Your task to perform on an android device: change notification settings in the gmail app Image 0: 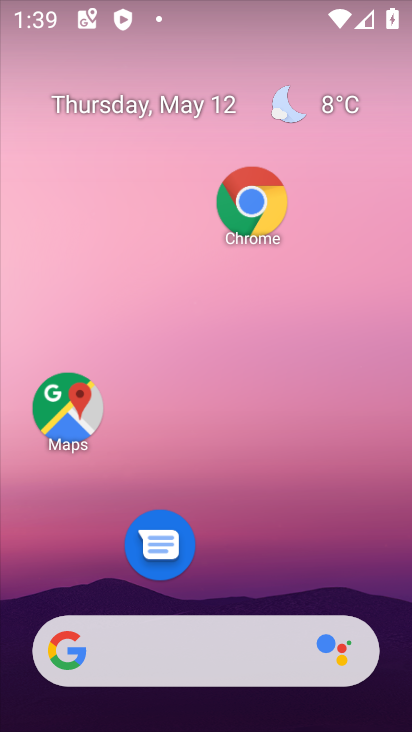
Step 0: drag from (218, 599) to (219, 259)
Your task to perform on an android device: change notification settings in the gmail app Image 1: 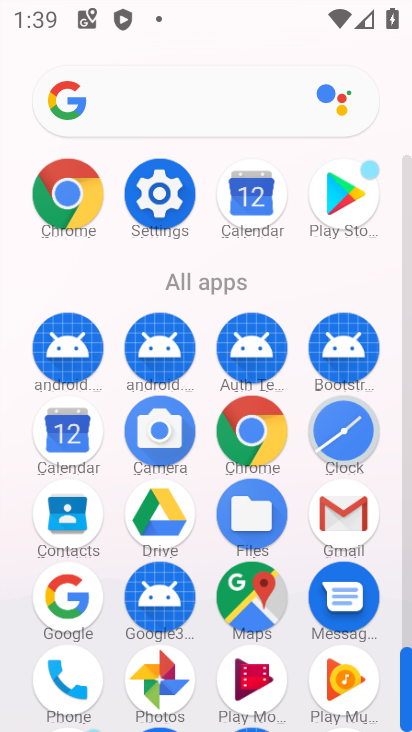
Step 1: click (320, 519)
Your task to perform on an android device: change notification settings in the gmail app Image 2: 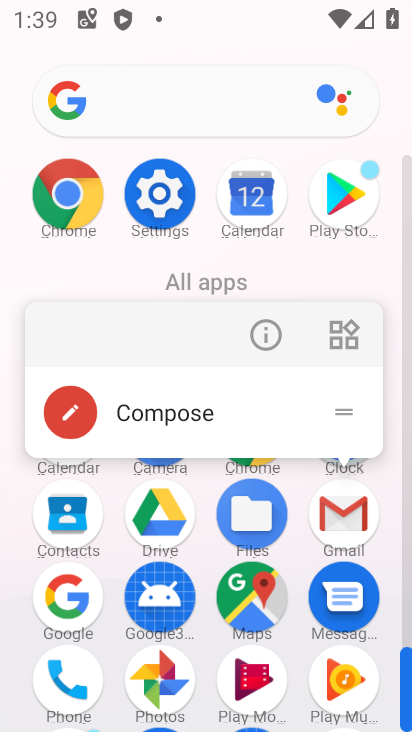
Step 2: click (255, 320)
Your task to perform on an android device: change notification settings in the gmail app Image 3: 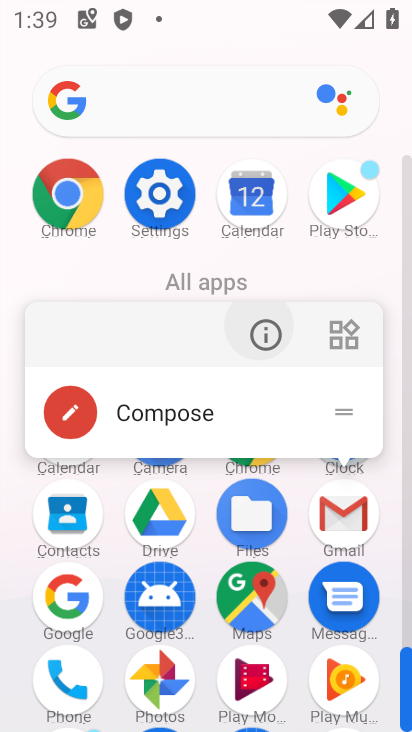
Step 3: click (255, 320)
Your task to perform on an android device: change notification settings in the gmail app Image 4: 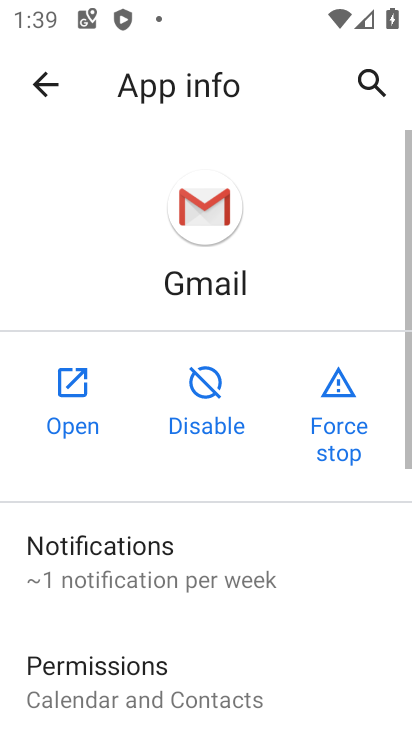
Step 4: click (82, 375)
Your task to perform on an android device: change notification settings in the gmail app Image 5: 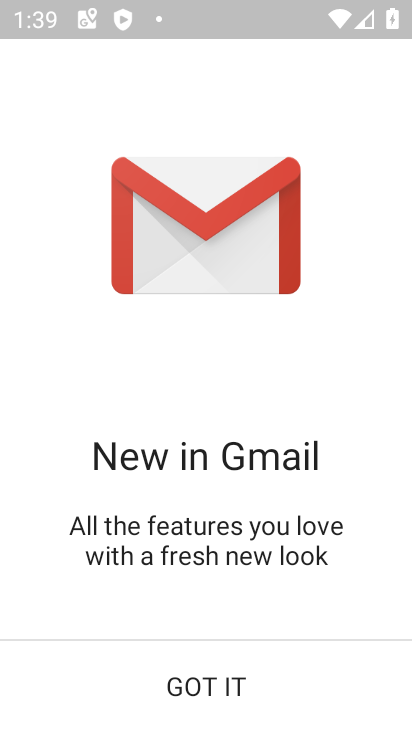
Step 5: click (203, 689)
Your task to perform on an android device: change notification settings in the gmail app Image 6: 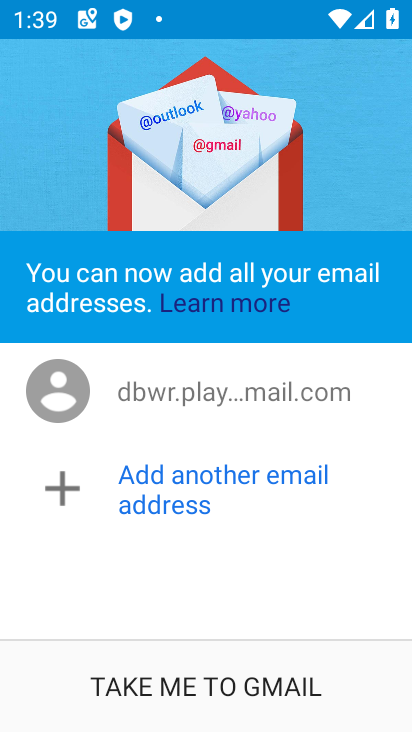
Step 6: click (204, 681)
Your task to perform on an android device: change notification settings in the gmail app Image 7: 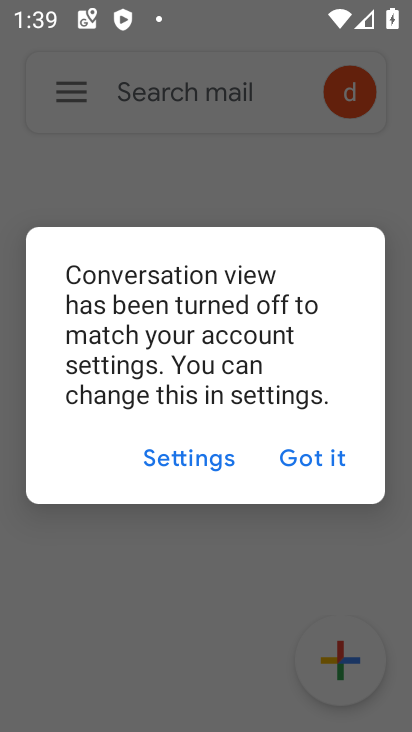
Step 7: click (321, 455)
Your task to perform on an android device: change notification settings in the gmail app Image 8: 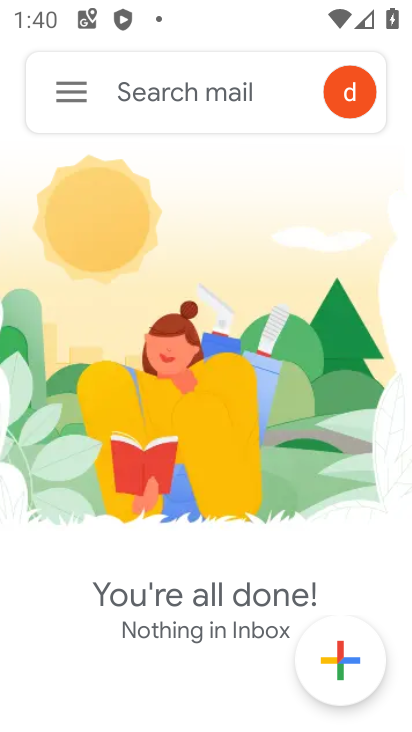
Step 8: click (62, 89)
Your task to perform on an android device: change notification settings in the gmail app Image 9: 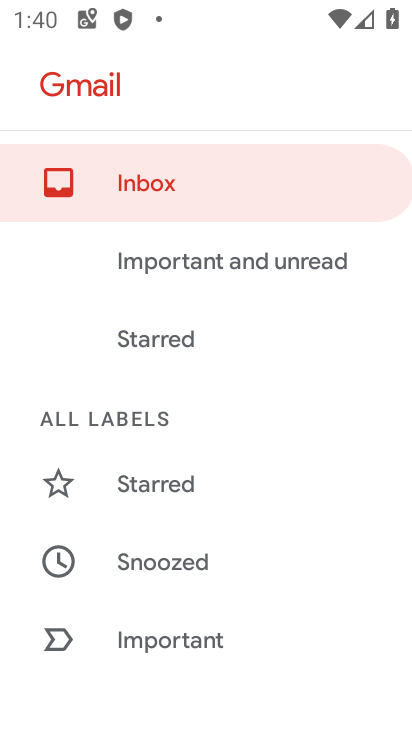
Step 9: drag from (167, 602) to (240, 34)
Your task to perform on an android device: change notification settings in the gmail app Image 10: 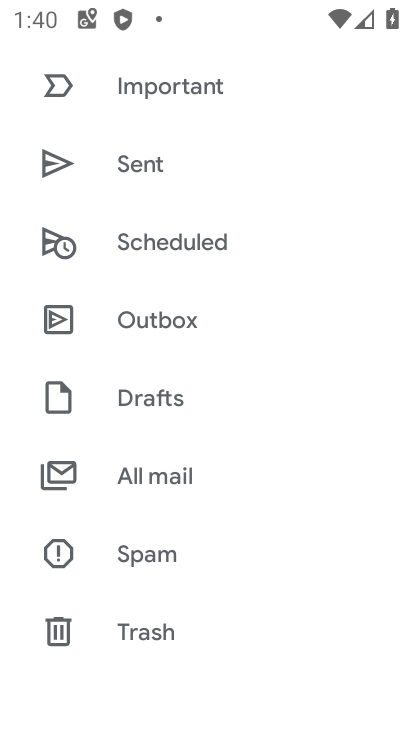
Step 10: drag from (220, 618) to (266, 185)
Your task to perform on an android device: change notification settings in the gmail app Image 11: 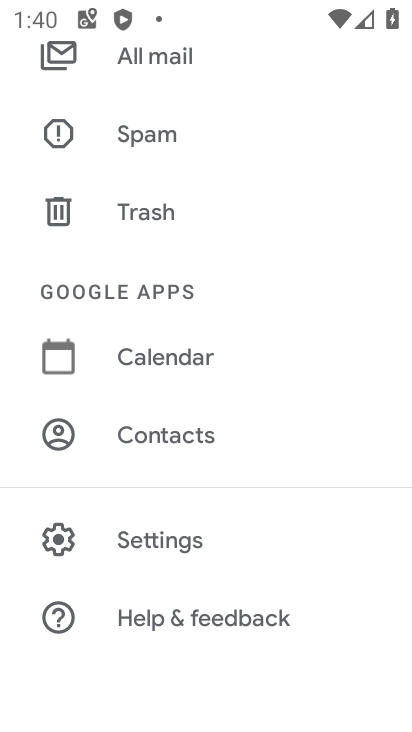
Step 11: click (136, 548)
Your task to perform on an android device: change notification settings in the gmail app Image 12: 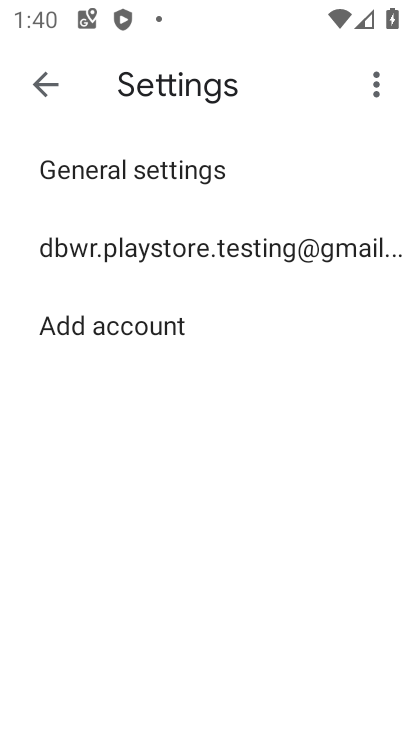
Step 12: drag from (197, 541) to (237, 273)
Your task to perform on an android device: change notification settings in the gmail app Image 13: 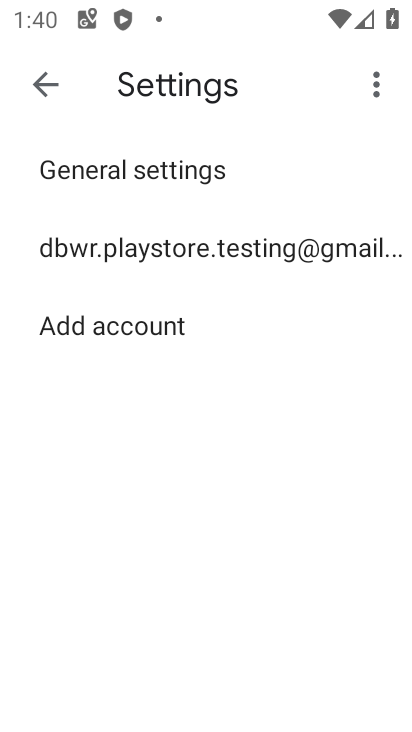
Step 13: click (232, 256)
Your task to perform on an android device: change notification settings in the gmail app Image 14: 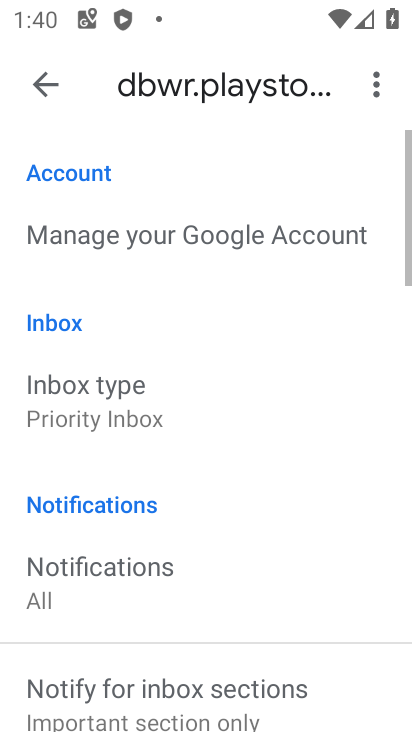
Step 14: click (213, 259)
Your task to perform on an android device: change notification settings in the gmail app Image 15: 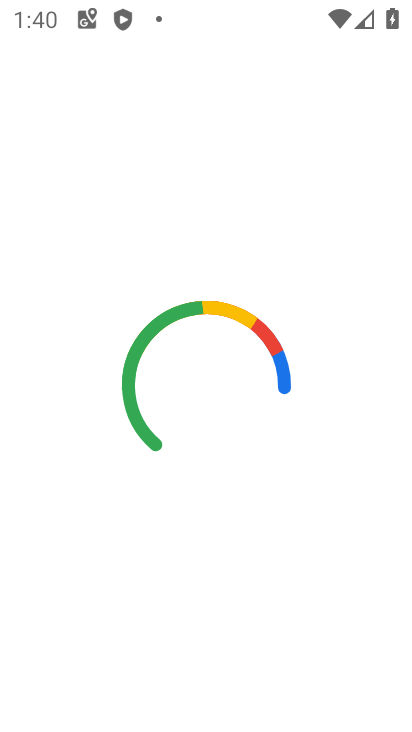
Step 15: press back button
Your task to perform on an android device: change notification settings in the gmail app Image 16: 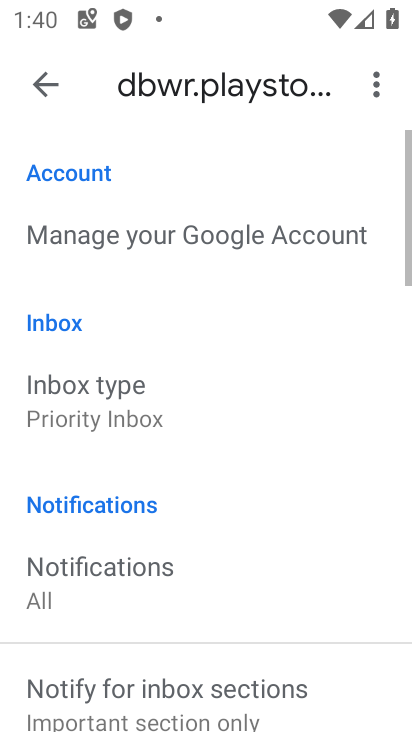
Step 16: drag from (157, 594) to (226, 235)
Your task to perform on an android device: change notification settings in the gmail app Image 17: 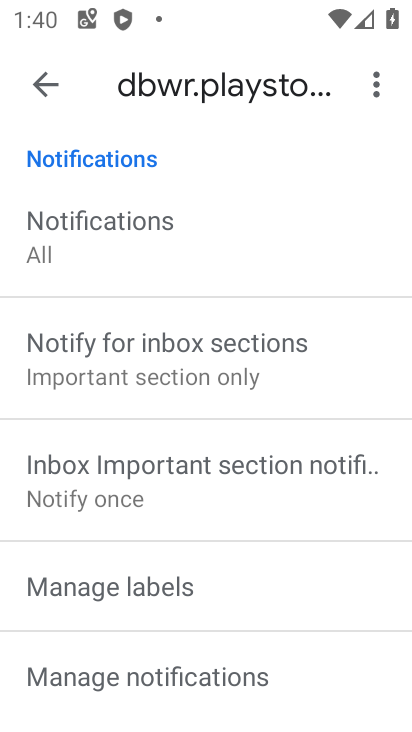
Step 17: drag from (167, 602) to (192, 332)
Your task to perform on an android device: change notification settings in the gmail app Image 18: 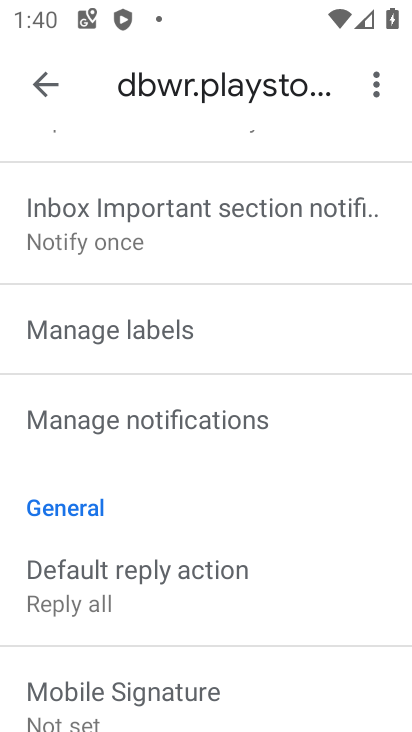
Step 18: click (181, 415)
Your task to perform on an android device: change notification settings in the gmail app Image 19: 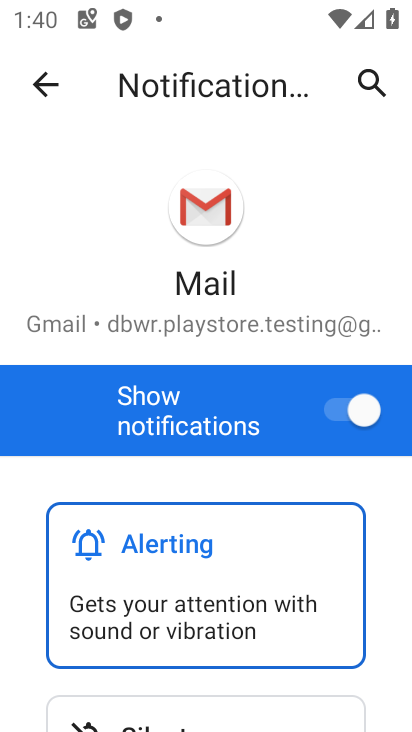
Step 19: click (322, 421)
Your task to perform on an android device: change notification settings in the gmail app Image 20: 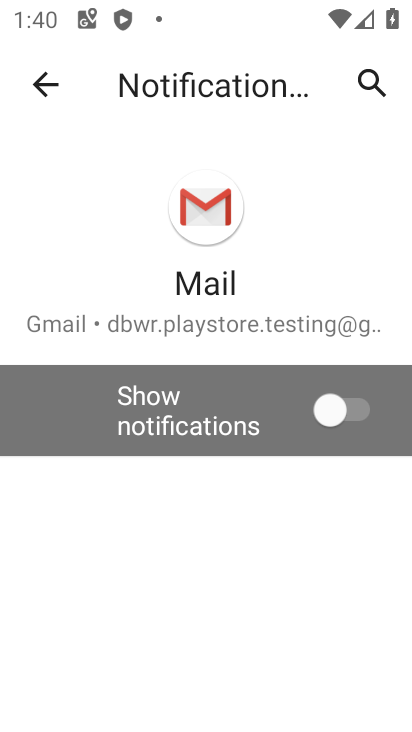
Step 20: task complete